Your task to perform on an android device: What's the weather today? Image 0: 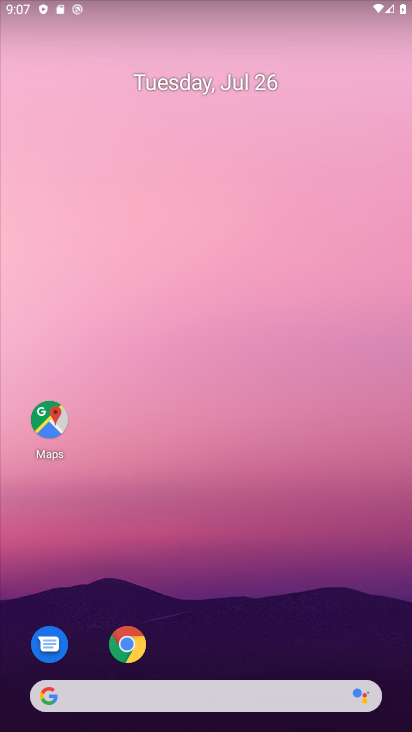
Step 0: drag from (254, 645) to (277, 7)
Your task to perform on an android device: What's the weather today? Image 1: 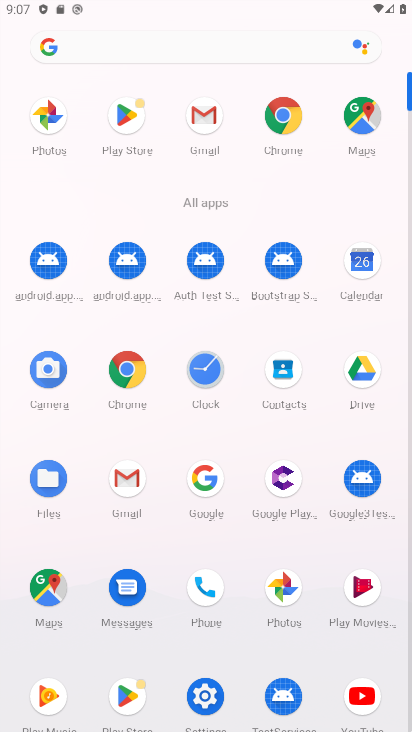
Step 1: click (157, 44)
Your task to perform on an android device: What's the weather today? Image 2: 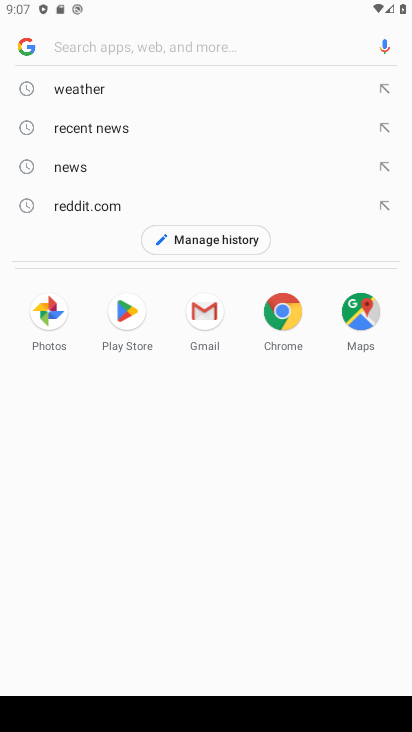
Step 2: click (91, 84)
Your task to perform on an android device: What's the weather today? Image 3: 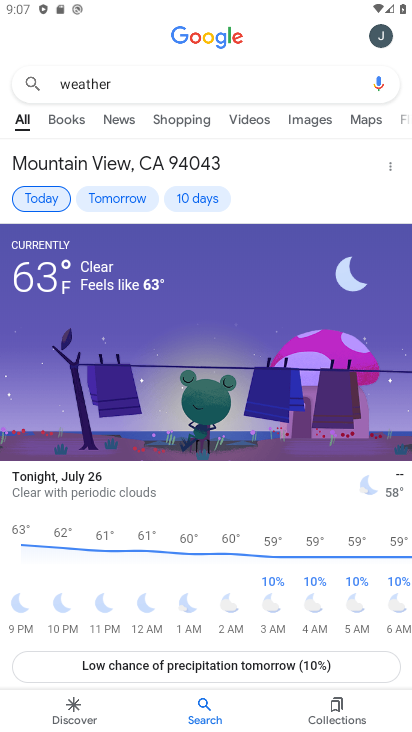
Step 3: task complete